Your task to perform on an android device: turn off location history Image 0: 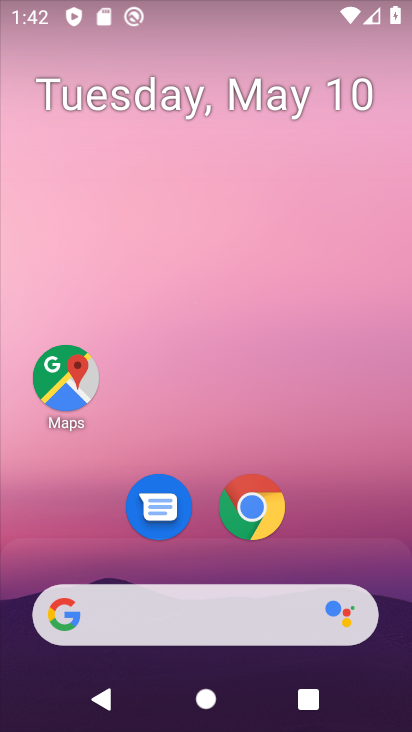
Step 0: drag from (347, 529) to (232, 133)
Your task to perform on an android device: turn off location history Image 1: 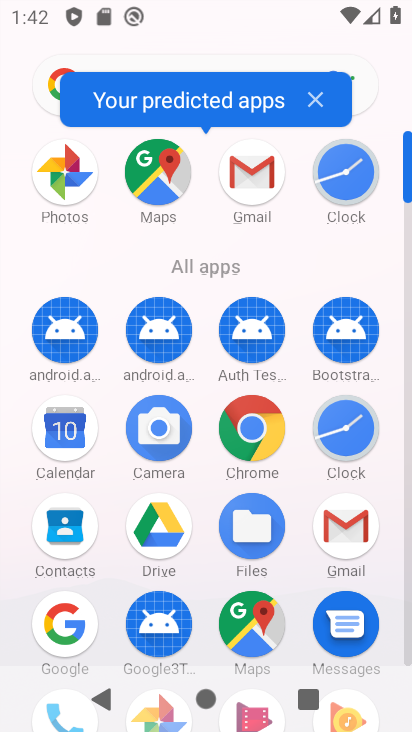
Step 1: drag from (207, 604) to (216, 211)
Your task to perform on an android device: turn off location history Image 2: 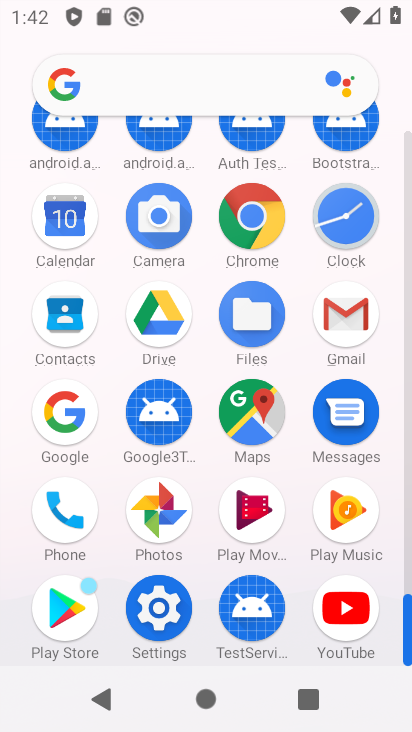
Step 2: click (152, 620)
Your task to perform on an android device: turn off location history Image 3: 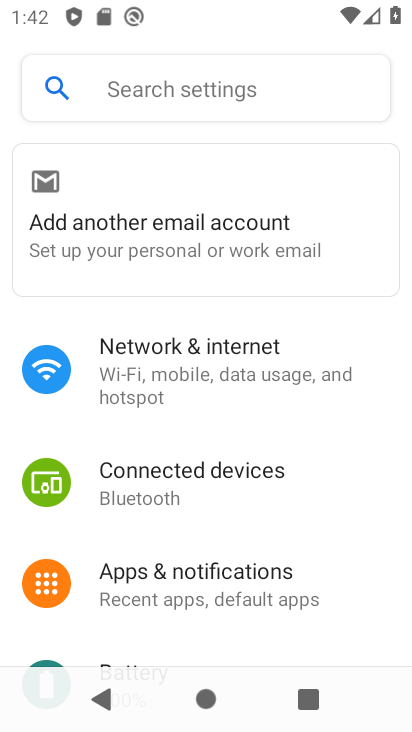
Step 3: drag from (195, 592) to (197, 119)
Your task to perform on an android device: turn off location history Image 4: 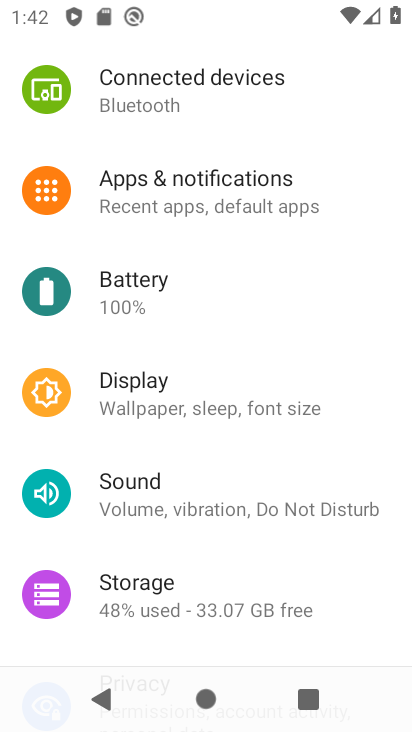
Step 4: drag from (198, 574) to (201, 217)
Your task to perform on an android device: turn off location history Image 5: 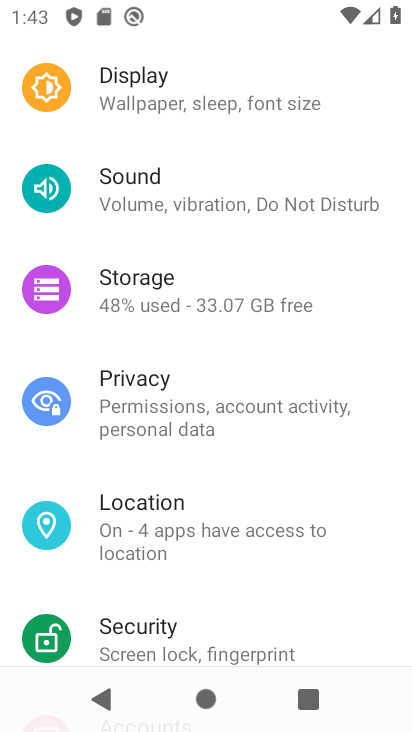
Step 5: click (153, 532)
Your task to perform on an android device: turn off location history Image 6: 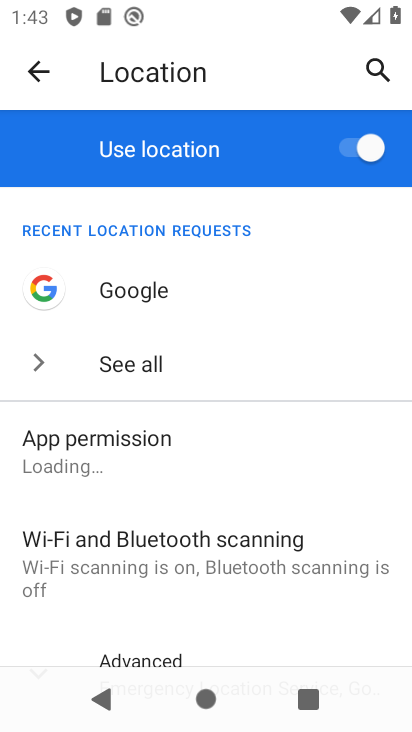
Step 6: drag from (145, 624) to (152, 199)
Your task to perform on an android device: turn off location history Image 7: 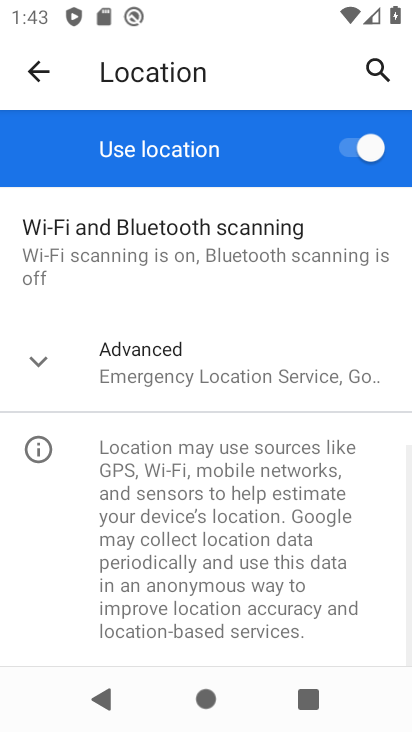
Step 7: click (177, 365)
Your task to perform on an android device: turn off location history Image 8: 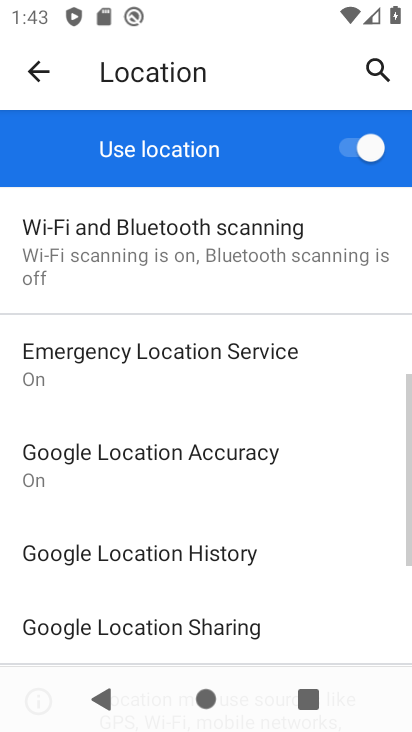
Step 8: click (133, 558)
Your task to perform on an android device: turn off location history Image 9: 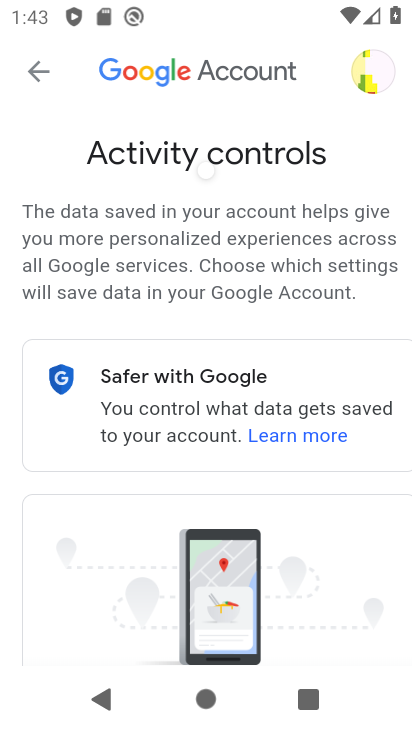
Step 9: drag from (163, 595) to (184, 188)
Your task to perform on an android device: turn off location history Image 10: 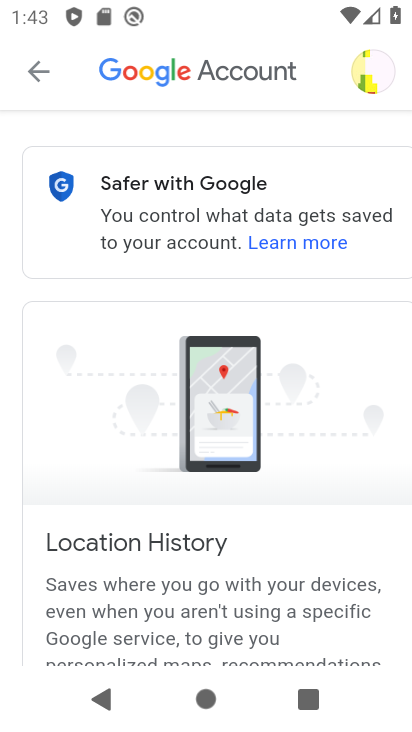
Step 10: drag from (203, 612) to (202, 234)
Your task to perform on an android device: turn off location history Image 11: 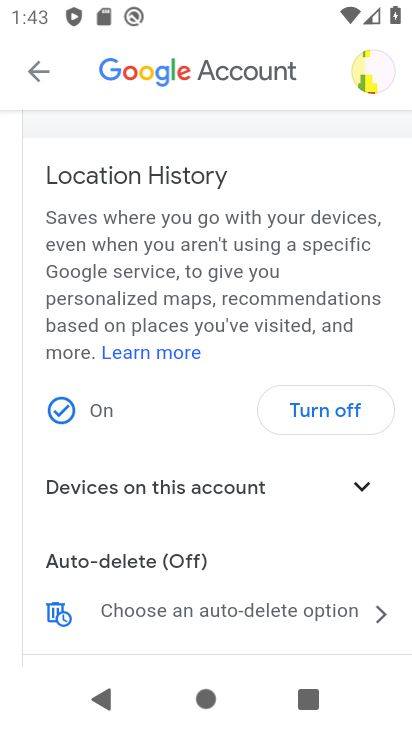
Step 11: click (314, 401)
Your task to perform on an android device: turn off location history Image 12: 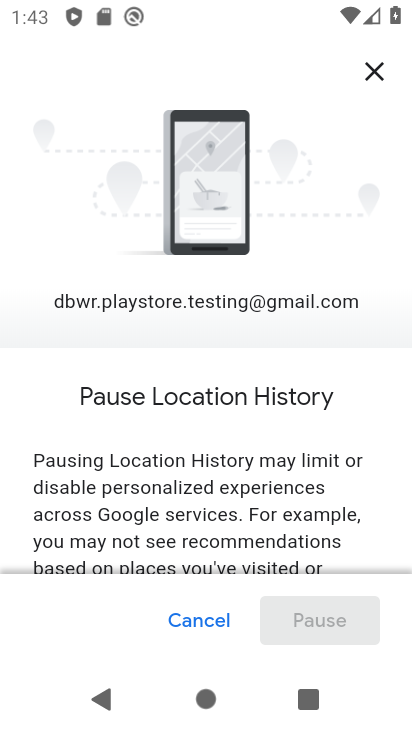
Step 12: drag from (222, 526) to (211, 123)
Your task to perform on an android device: turn off location history Image 13: 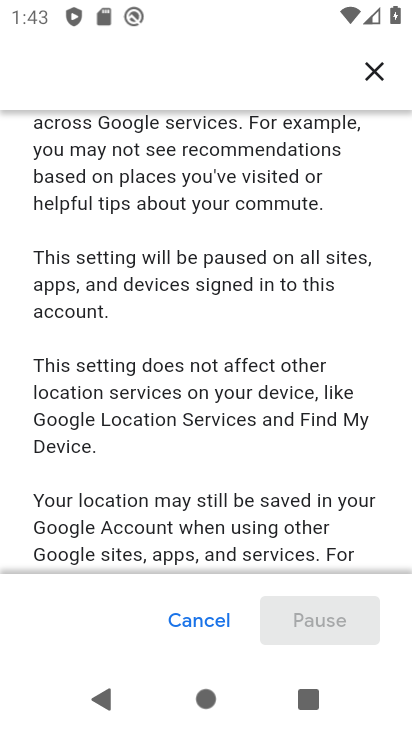
Step 13: drag from (251, 500) to (252, 229)
Your task to perform on an android device: turn off location history Image 14: 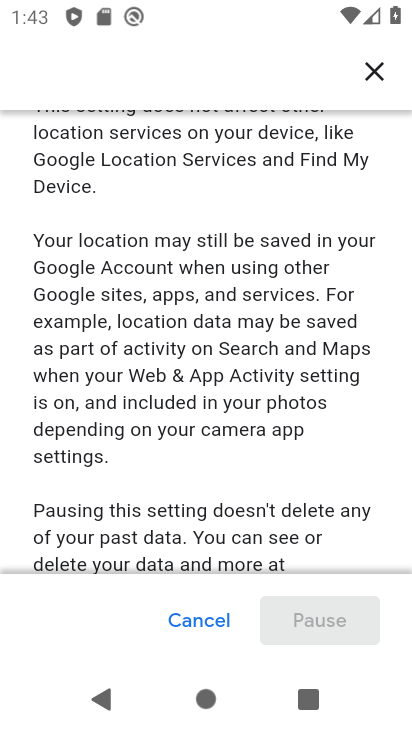
Step 14: drag from (266, 511) to (265, 281)
Your task to perform on an android device: turn off location history Image 15: 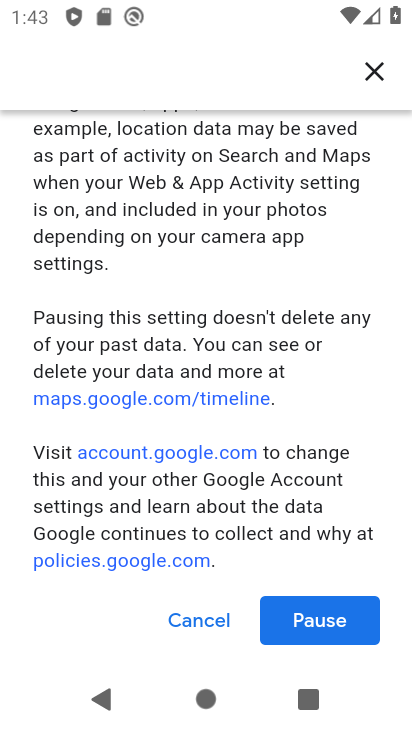
Step 15: click (293, 612)
Your task to perform on an android device: turn off location history Image 16: 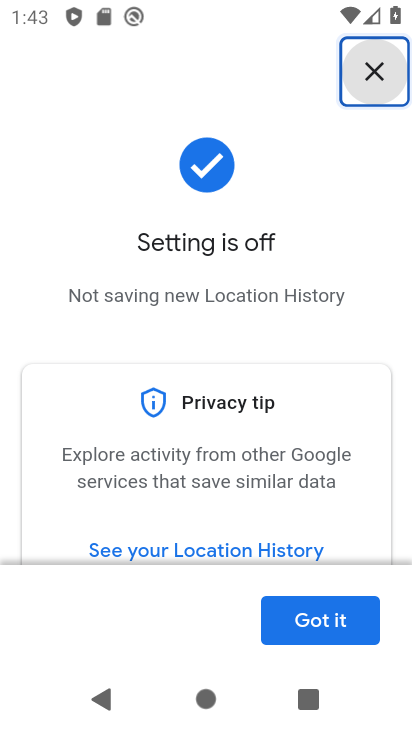
Step 16: click (325, 624)
Your task to perform on an android device: turn off location history Image 17: 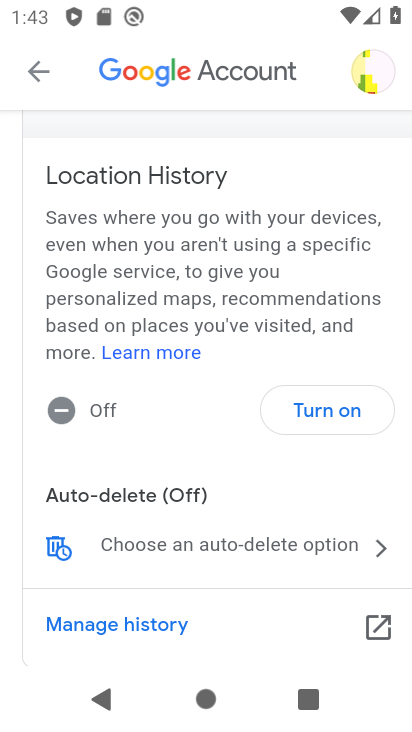
Step 17: task complete